Your task to perform on an android device: turn vacation reply on in the gmail app Image 0: 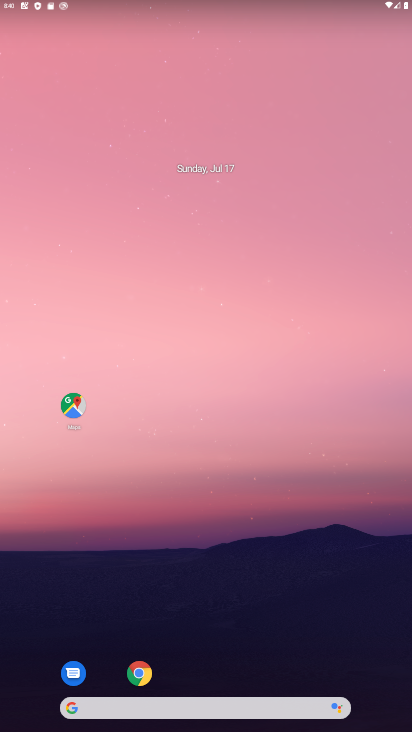
Step 0: click (220, 67)
Your task to perform on an android device: turn vacation reply on in the gmail app Image 1: 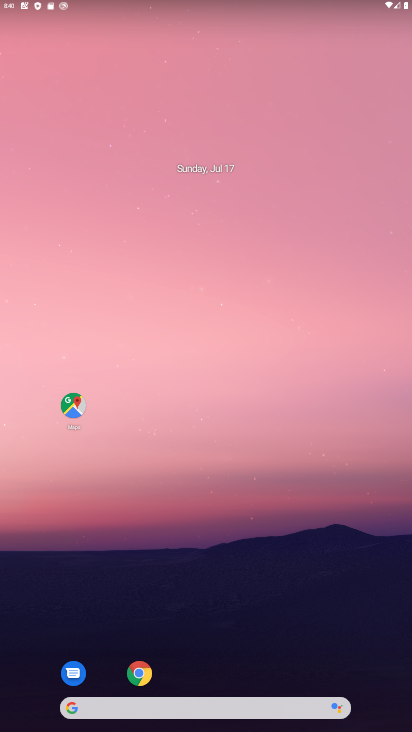
Step 1: drag from (290, 589) to (318, 65)
Your task to perform on an android device: turn vacation reply on in the gmail app Image 2: 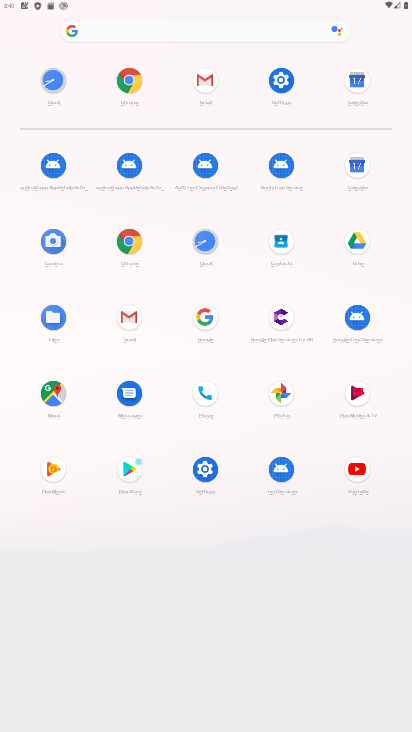
Step 2: click (209, 82)
Your task to perform on an android device: turn vacation reply on in the gmail app Image 3: 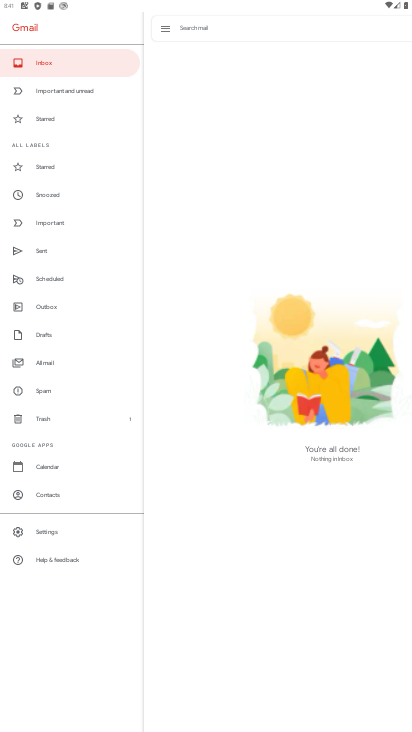
Step 3: click (55, 535)
Your task to perform on an android device: turn vacation reply on in the gmail app Image 4: 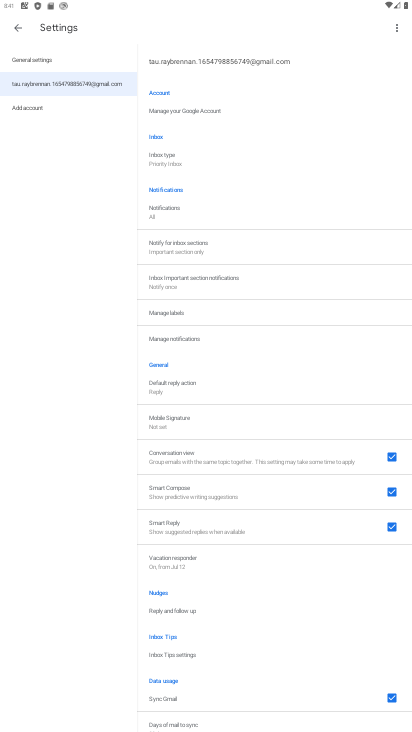
Step 4: drag from (273, 648) to (331, 101)
Your task to perform on an android device: turn vacation reply on in the gmail app Image 5: 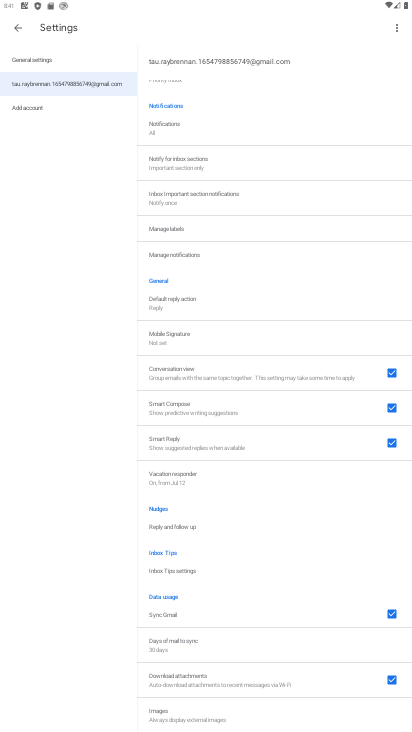
Step 5: click (190, 478)
Your task to perform on an android device: turn vacation reply on in the gmail app Image 6: 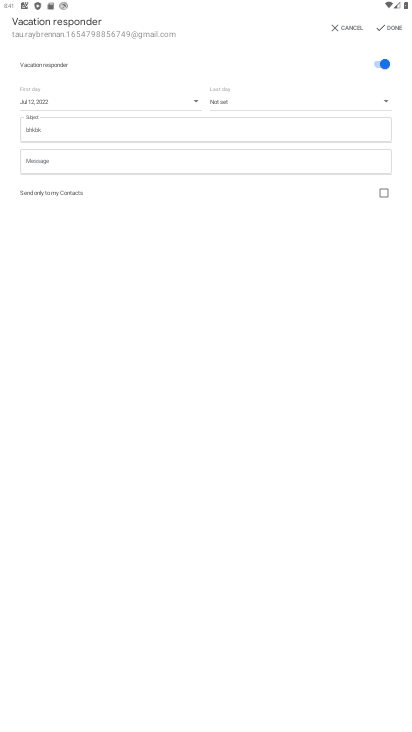
Step 6: task complete